Your task to perform on an android device: Search for seafood restaurants on Google Maps Image 0: 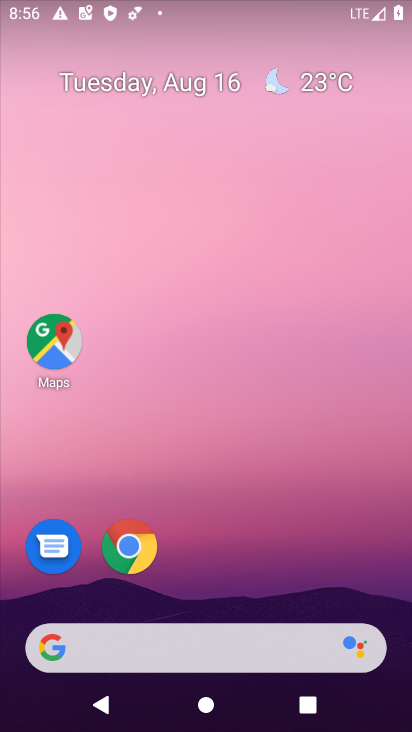
Step 0: click (58, 345)
Your task to perform on an android device: Search for seafood restaurants on Google Maps Image 1: 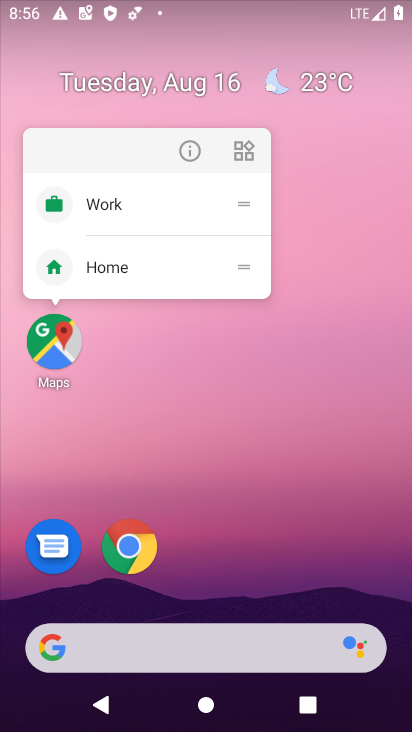
Step 1: click (55, 342)
Your task to perform on an android device: Search for seafood restaurants on Google Maps Image 2: 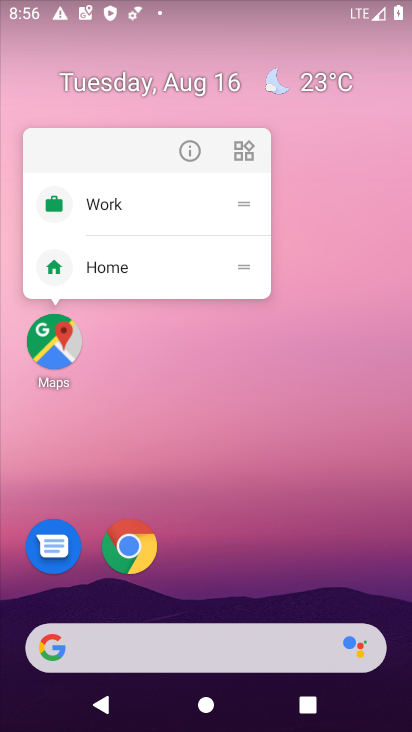
Step 2: click (59, 344)
Your task to perform on an android device: Search for seafood restaurants on Google Maps Image 3: 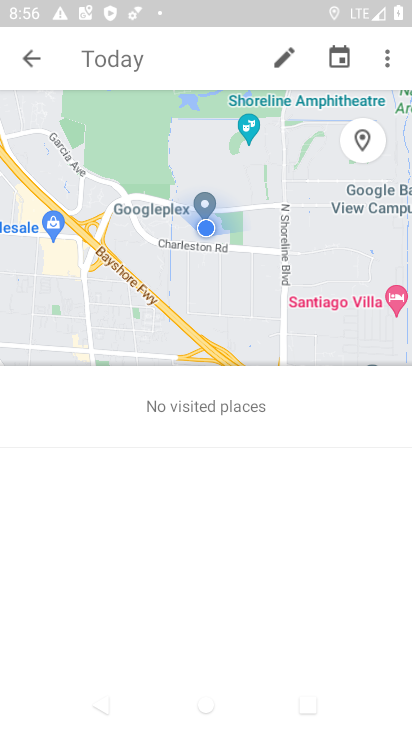
Step 3: click (29, 54)
Your task to perform on an android device: Search for seafood restaurants on Google Maps Image 4: 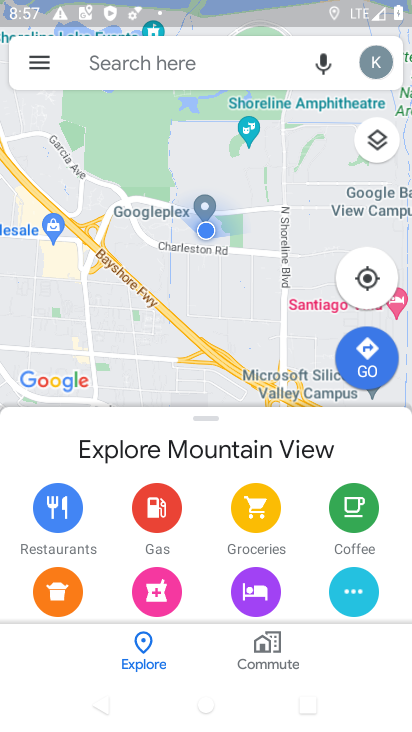
Step 4: click (151, 65)
Your task to perform on an android device: Search for seafood restaurants on Google Maps Image 5: 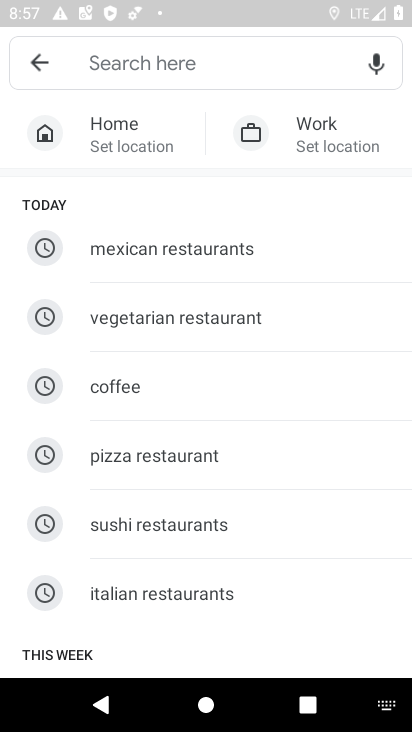
Step 5: drag from (219, 509) to (263, 181)
Your task to perform on an android device: Search for seafood restaurants on Google Maps Image 6: 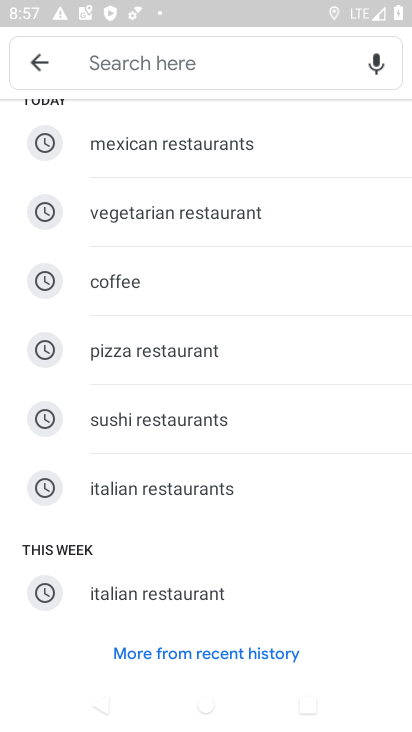
Step 6: drag from (242, 267) to (279, 614)
Your task to perform on an android device: Search for seafood restaurants on Google Maps Image 7: 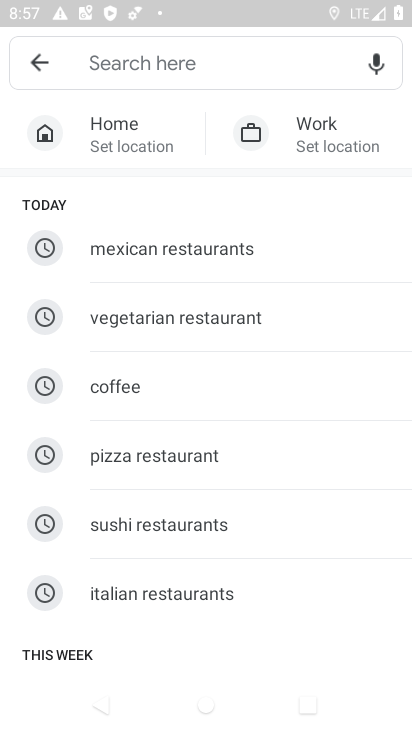
Step 7: click (257, 60)
Your task to perform on an android device: Search for seafood restaurants on Google Maps Image 8: 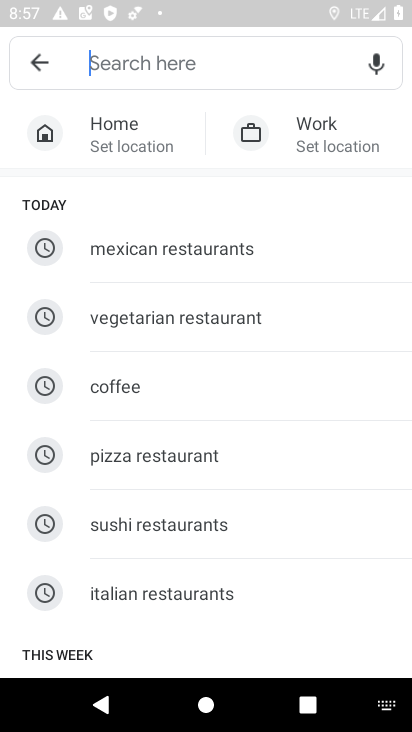
Step 8: type "seafood restaurants"
Your task to perform on an android device: Search for seafood restaurants on Google Maps Image 9: 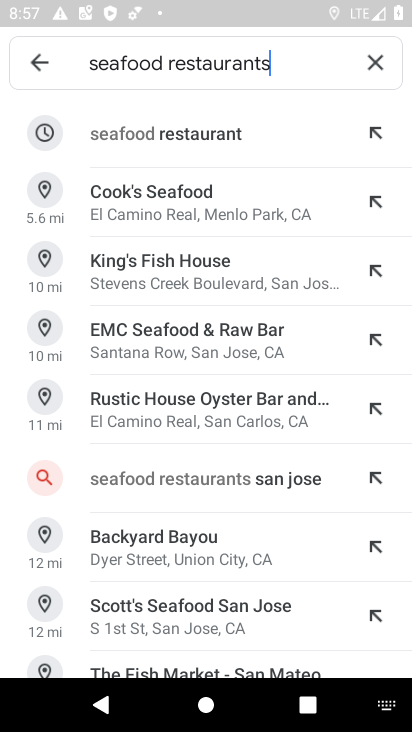
Step 9: click (208, 131)
Your task to perform on an android device: Search for seafood restaurants on Google Maps Image 10: 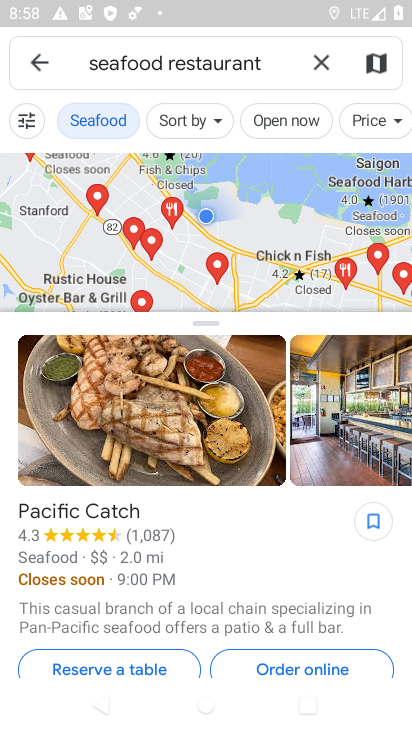
Step 10: task complete